Your task to perform on an android device: open wifi settings Image 0: 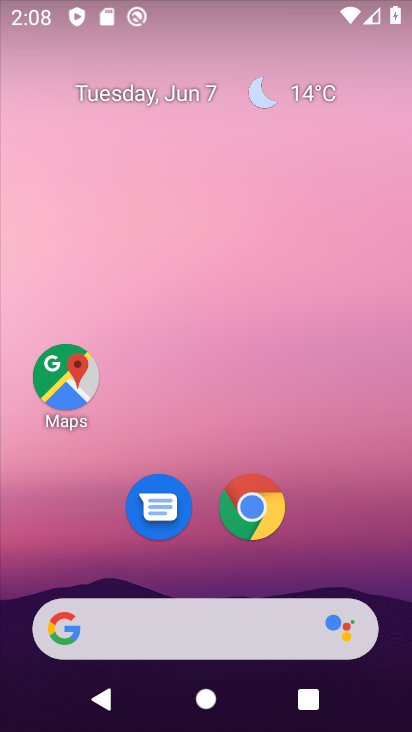
Step 0: drag from (332, 504) to (282, 36)
Your task to perform on an android device: open wifi settings Image 1: 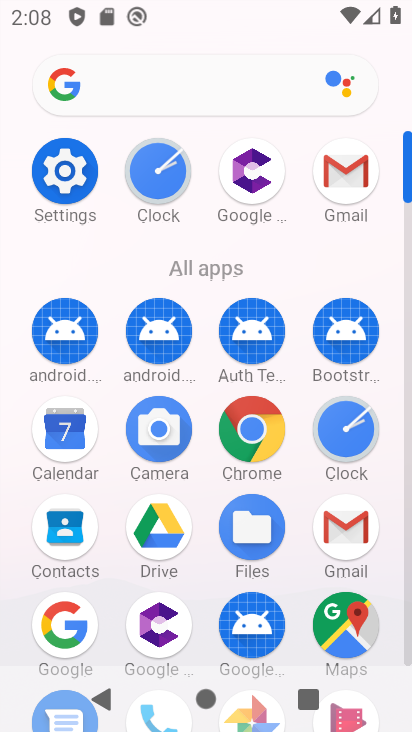
Step 1: click (71, 173)
Your task to perform on an android device: open wifi settings Image 2: 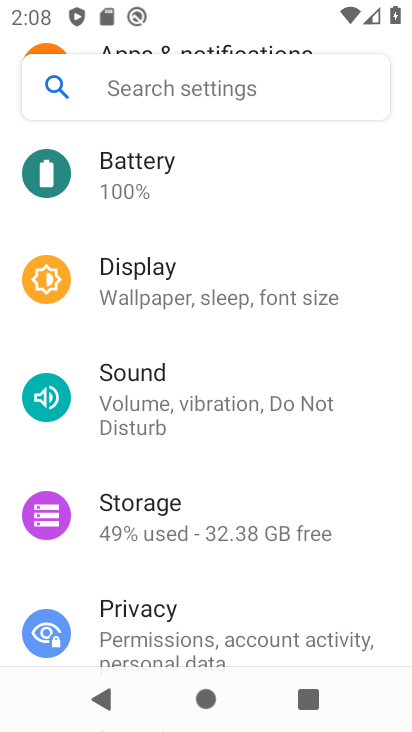
Step 2: drag from (164, 197) to (237, 649)
Your task to perform on an android device: open wifi settings Image 3: 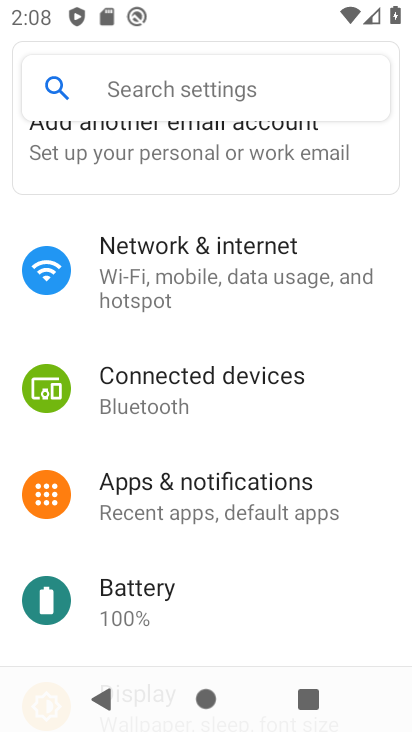
Step 3: drag from (217, 224) to (232, 336)
Your task to perform on an android device: open wifi settings Image 4: 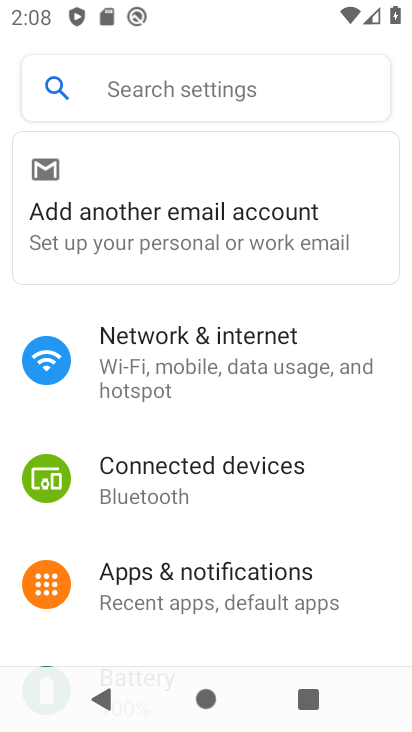
Step 4: click (205, 369)
Your task to perform on an android device: open wifi settings Image 5: 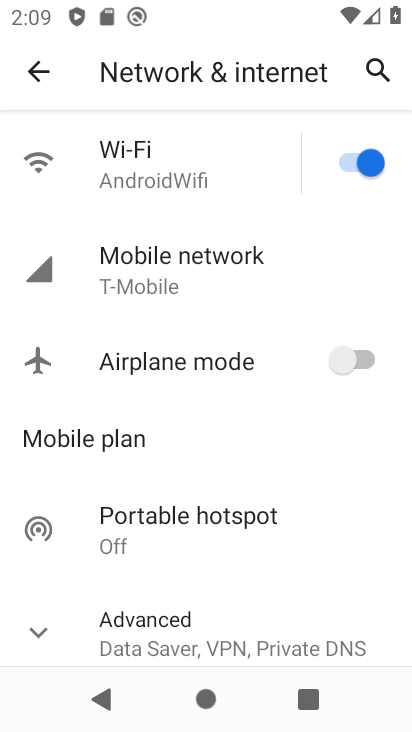
Step 5: click (157, 162)
Your task to perform on an android device: open wifi settings Image 6: 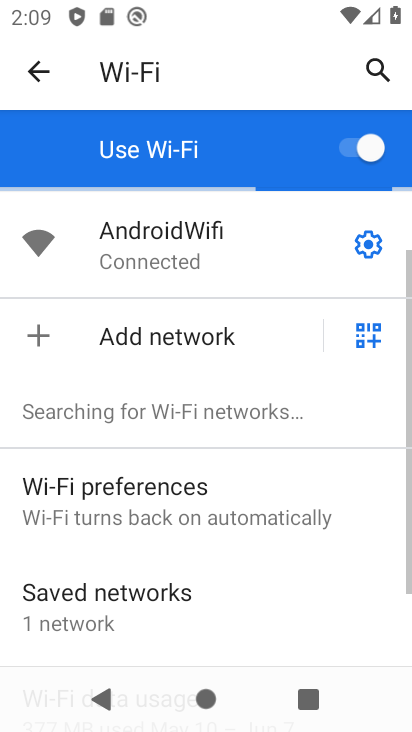
Step 6: click (363, 234)
Your task to perform on an android device: open wifi settings Image 7: 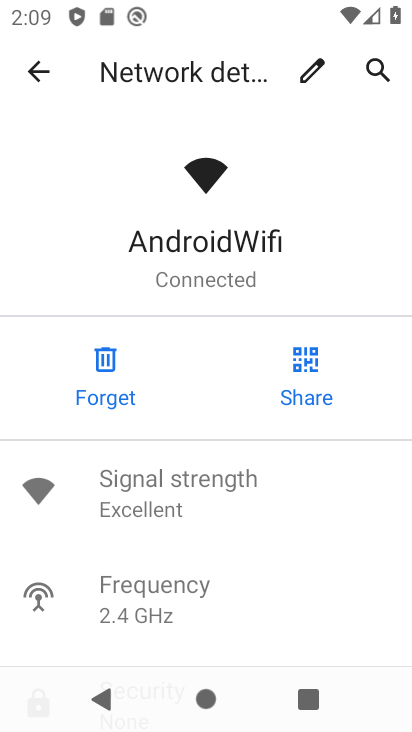
Step 7: task complete